Your task to perform on an android device: Open ESPN.com Image 0: 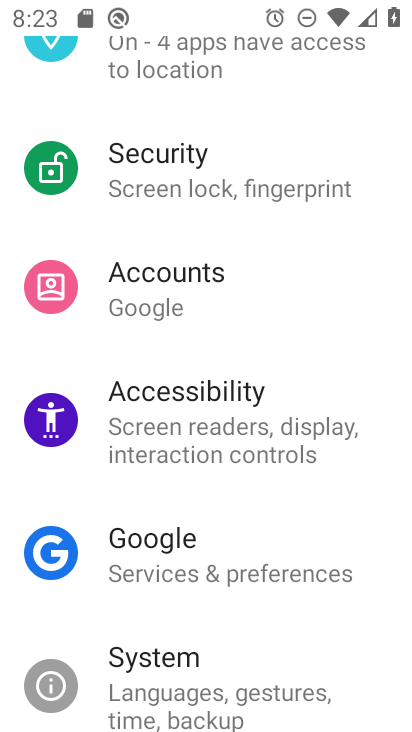
Step 0: press home button
Your task to perform on an android device: Open ESPN.com Image 1: 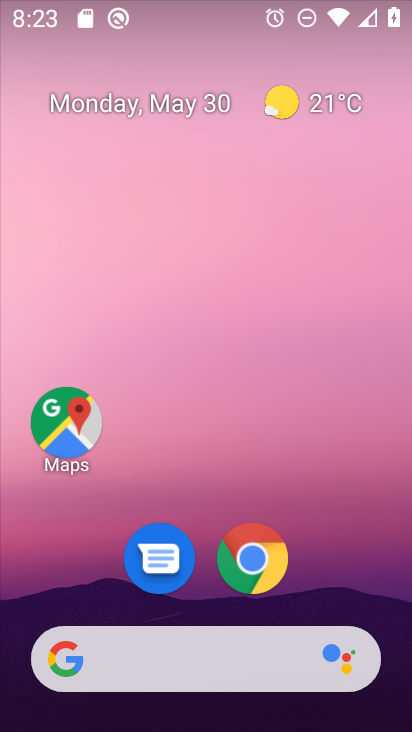
Step 1: click (157, 666)
Your task to perform on an android device: Open ESPN.com Image 2: 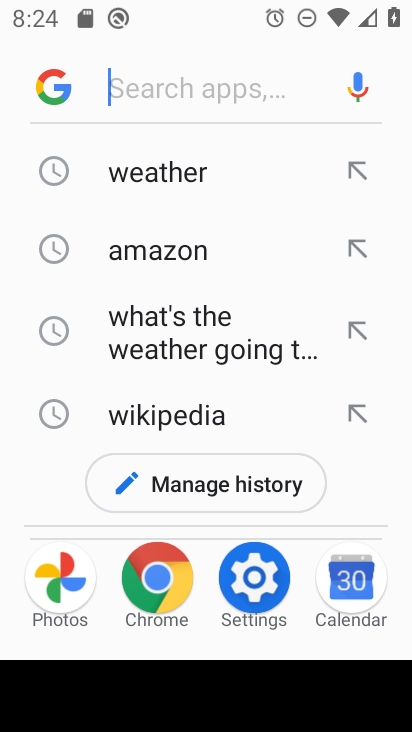
Step 2: type "espn.com"
Your task to perform on an android device: Open ESPN.com Image 3: 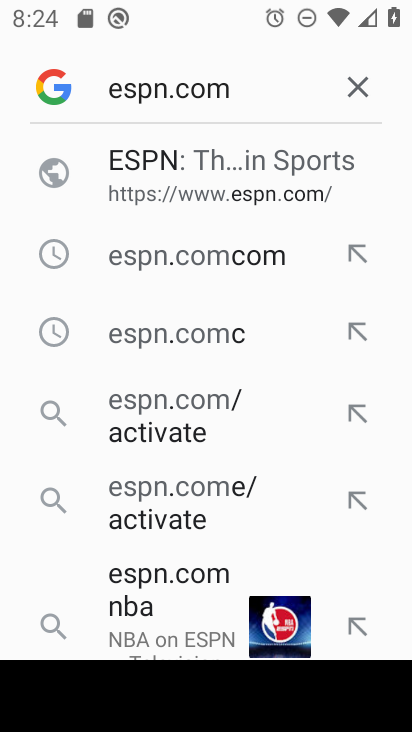
Step 3: click (226, 179)
Your task to perform on an android device: Open ESPN.com Image 4: 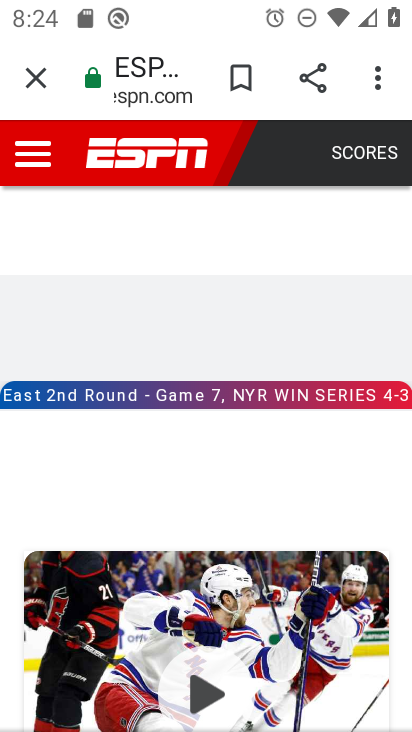
Step 4: task complete